Your task to perform on an android device: Open Wikipedia Image 0: 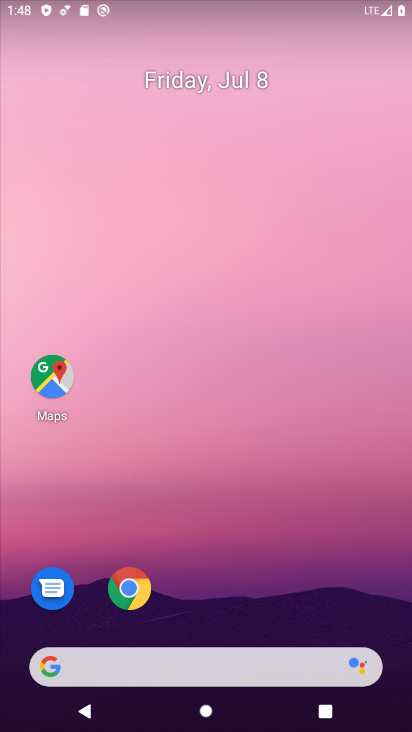
Step 0: press home button
Your task to perform on an android device: Open Wikipedia Image 1: 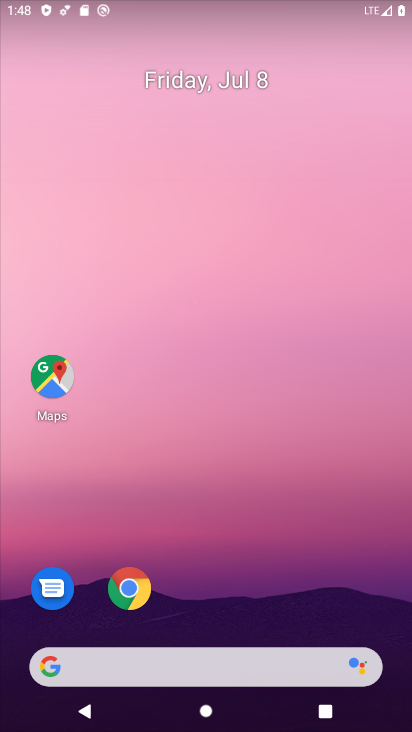
Step 1: click (45, 674)
Your task to perform on an android device: Open Wikipedia Image 2: 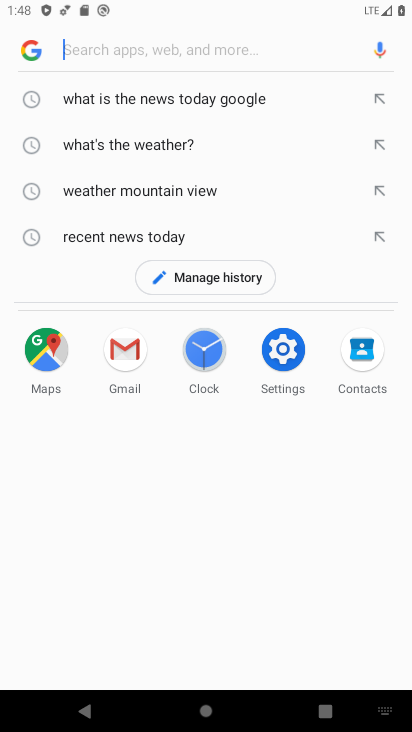
Step 2: type "wikipedia"
Your task to perform on an android device: Open Wikipedia Image 3: 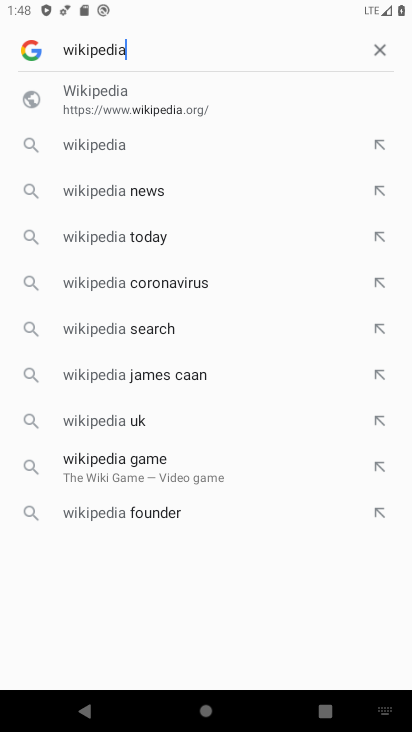
Step 3: click (132, 330)
Your task to perform on an android device: Open Wikipedia Image 4: 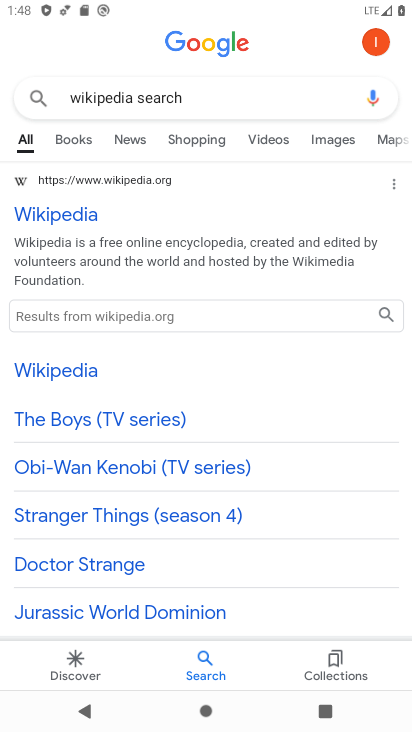
Step 4: click (45, 219)
Your task to perform on an android device: Open Wikipedia Image 5: 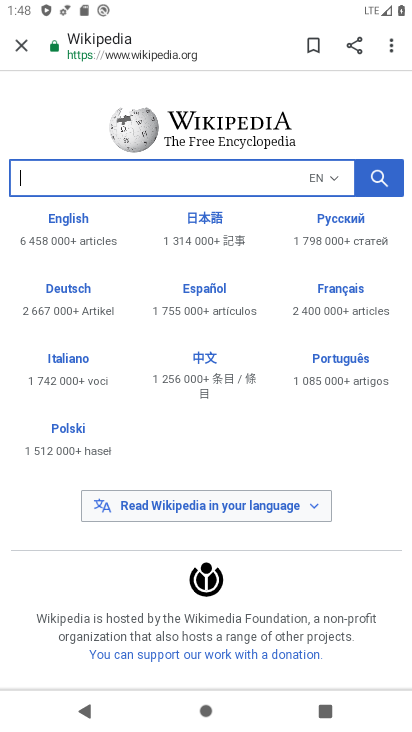
Step 5: task complete